Your task to perform on an android device: turn on improve location accuracy Image 0: 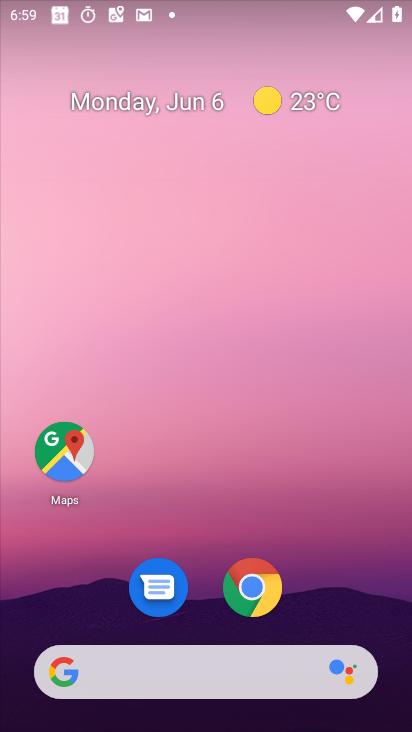
Step 0: drag from (407, 660) to (221, 0)
Your task to perform on an android device: turn on improve location accuracy Image 1: 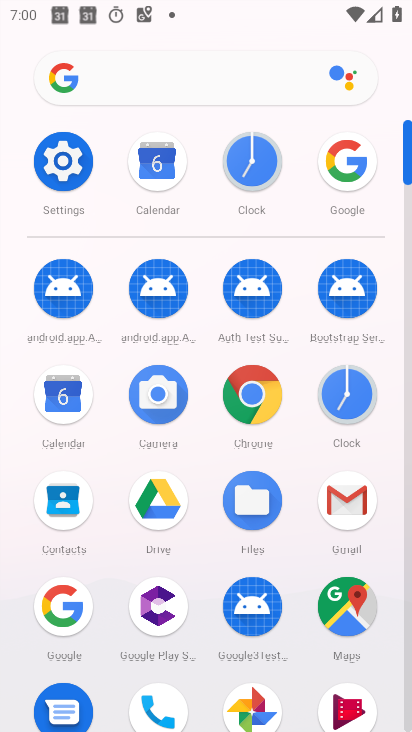
Step 1: click (71, 156)
Your task to perform on an android device: turn on improve location accuracy Image 2: 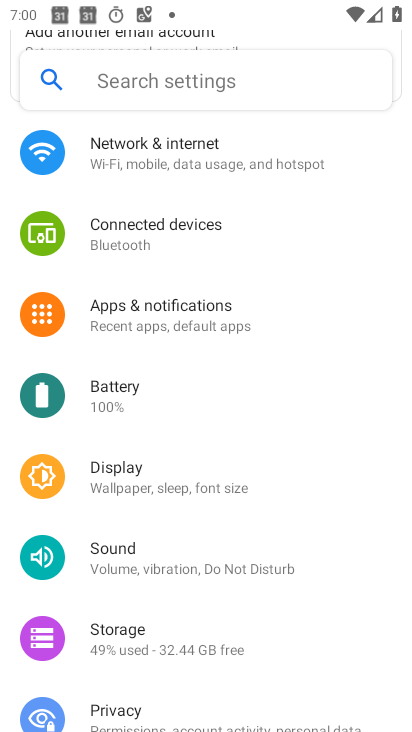
Step 2: drag from (118, 666) to (193, 184)
Your task to perform on an android device: turn on improve location accuracy Image 3: 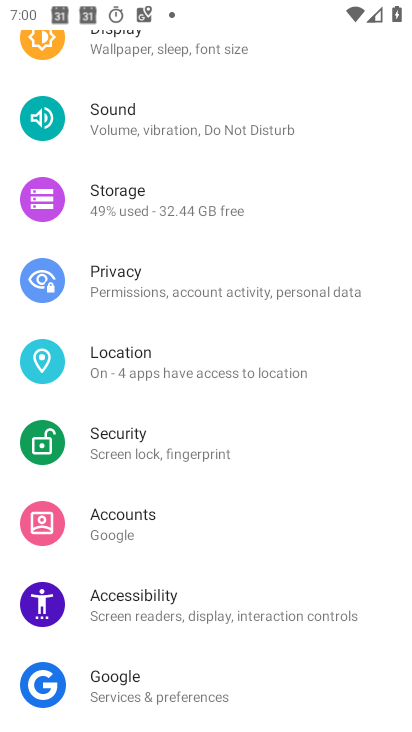
Step 3: click (110, 378)
Your task to perform on an android device: turn on improve location accuracy Image 4: 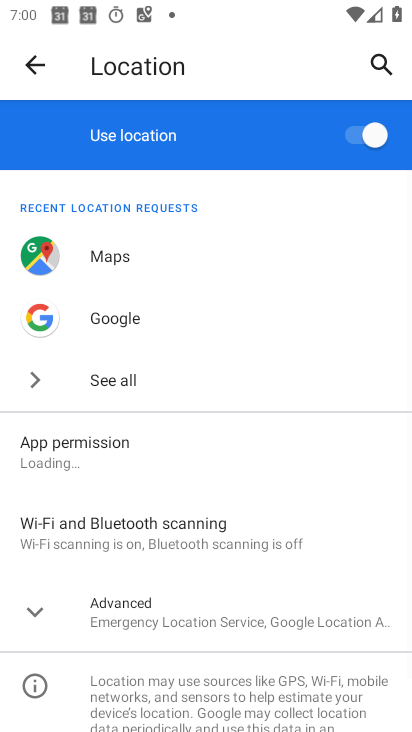
Step 4: click (221, 592)
Your task to perform on an android device: turn on improve location accuracy Image 5: 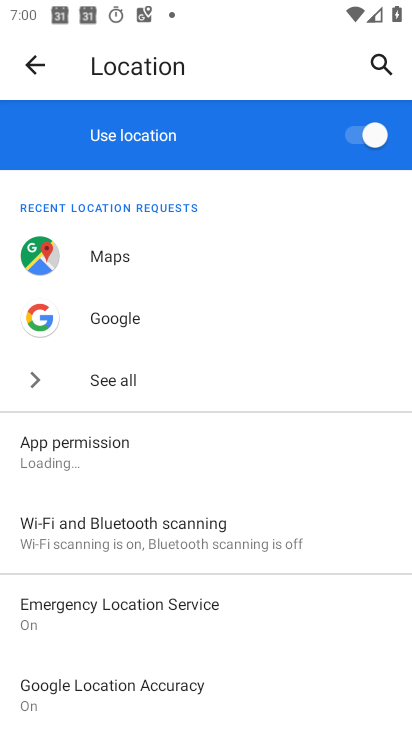
Step 5: click (196, 676)
Your task to perform on an android device: turn on improve location accuracy Image 6: 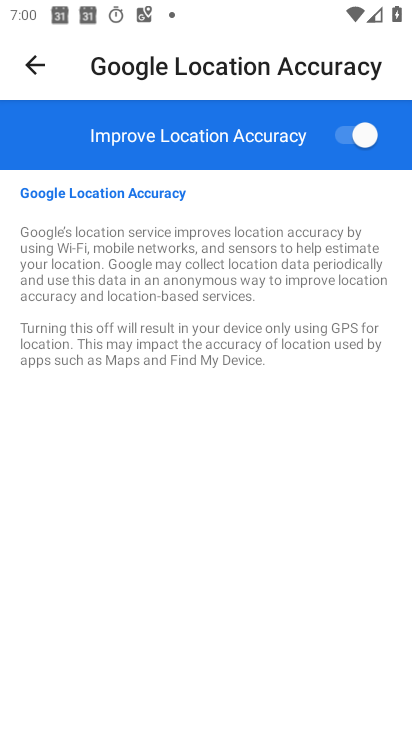
Step 6: task complete